Your task to perform on an android device: Open Reddit.com Image 0: 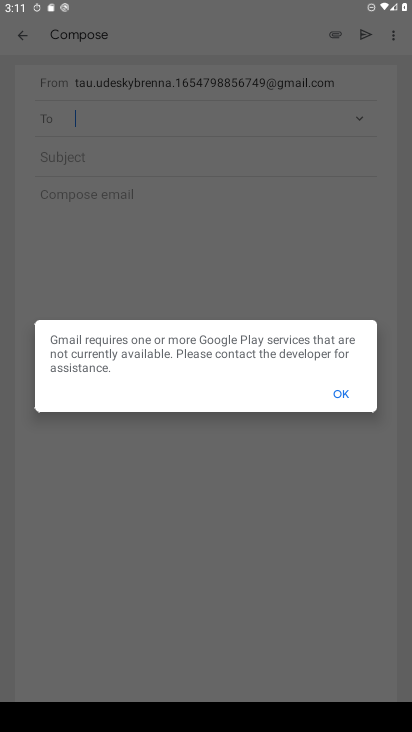
Step 0: press home button
Your task to perform on an android device: Open Reddit.com Image 1: 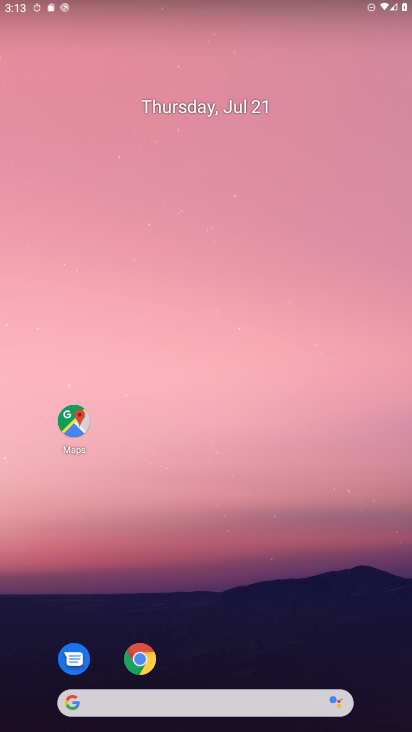
Step 1: click (198, 701)
Your task to perform on an android device: Open Reddit.com Image 2: 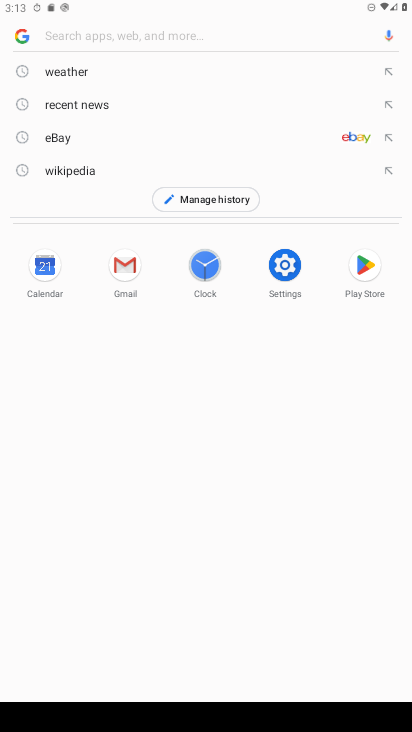
Step 2: type "Reddit.com"
Your task to perform on an android device: Open Reddit.com Image 3: 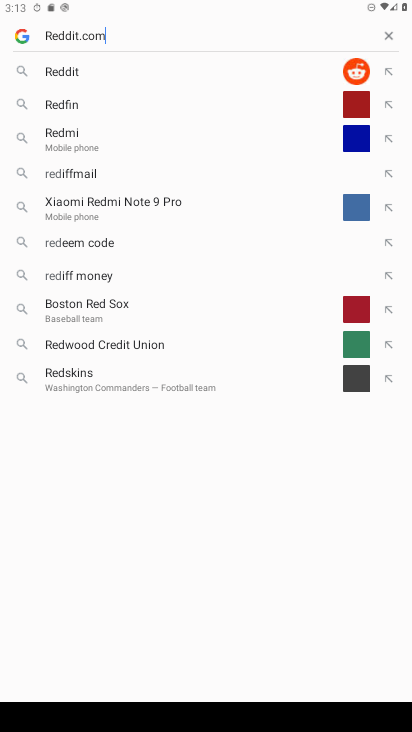
Step 3: type ""
Your task to perform on an android device: Open Reddit.com Image 4: 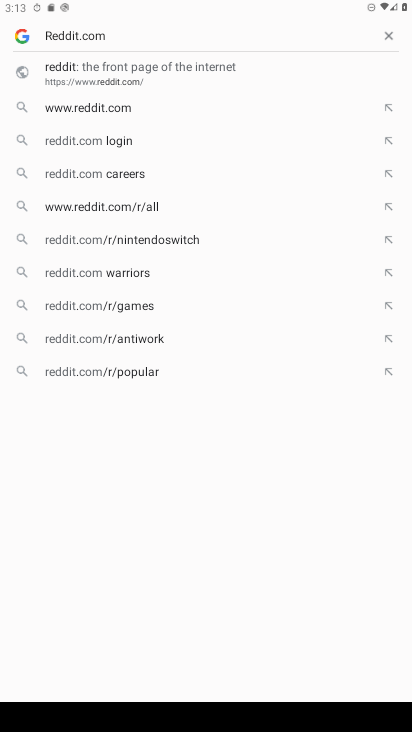
Step 4: click (190, 76)
Your task to perform on an android device: Open Reddit.com Image 5: 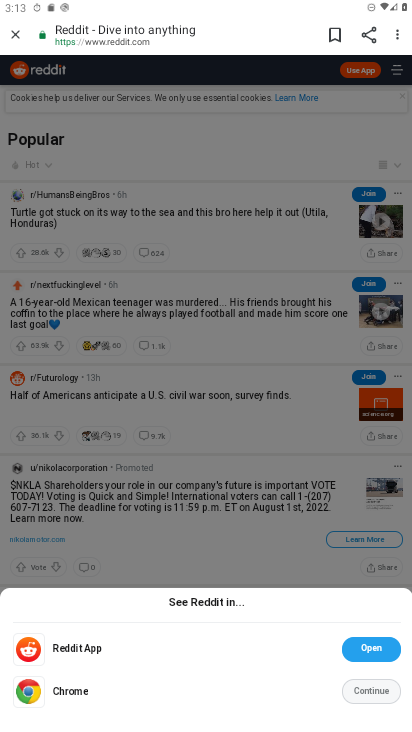
Step 5: task complete